Your task to perform on an android device: delete a single message in the gmail app Image 0: 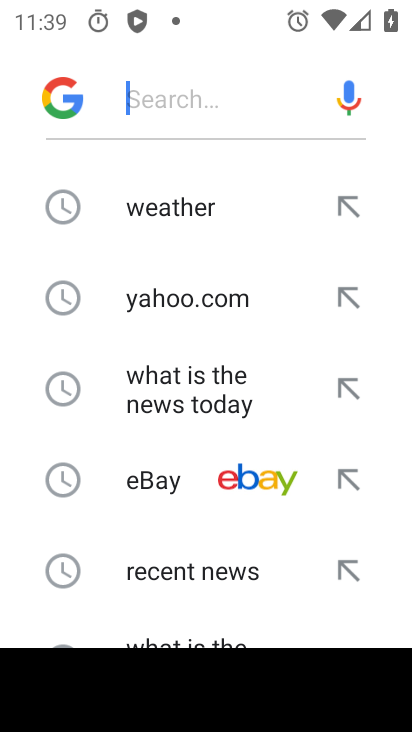
Step 0: press back button
Your task to perform on an android device: delete a single message in the gmail app Image 1: 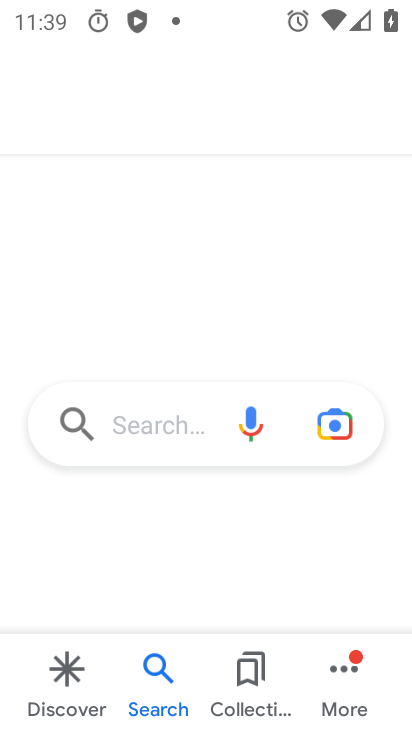
Step 1: press home button
Your task to perform on an android device: delete a single message in the gmail app Image 2: 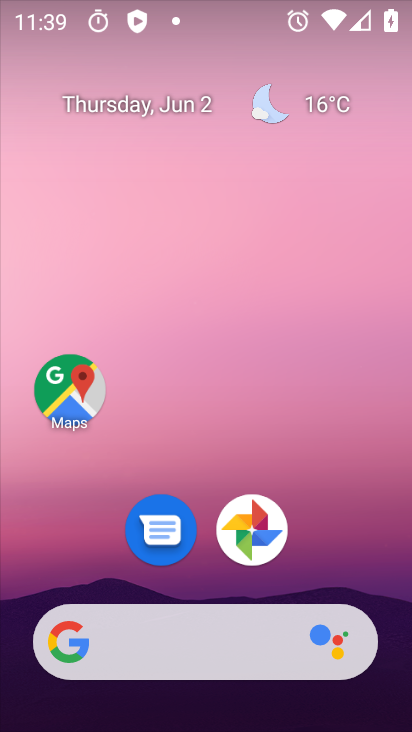
Step 2: drag from (227, 702) to (201, 131)
Your task to perform on an android device: delete a single message in the gmail app Image 3: 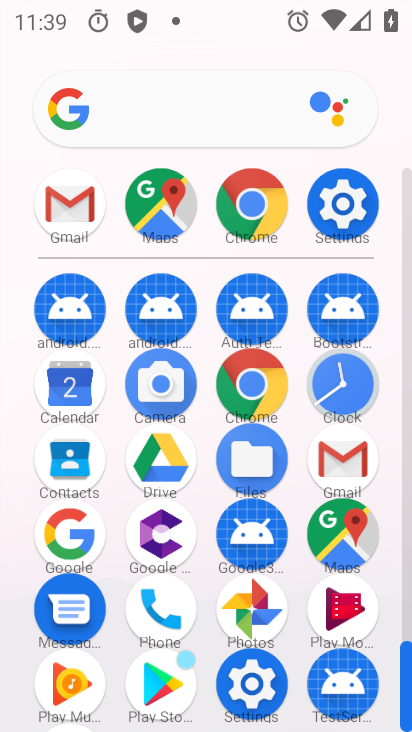
Step 3: click (331, 466)
Your task to perform on an android device: delete a single message in the gmail app Image 4: 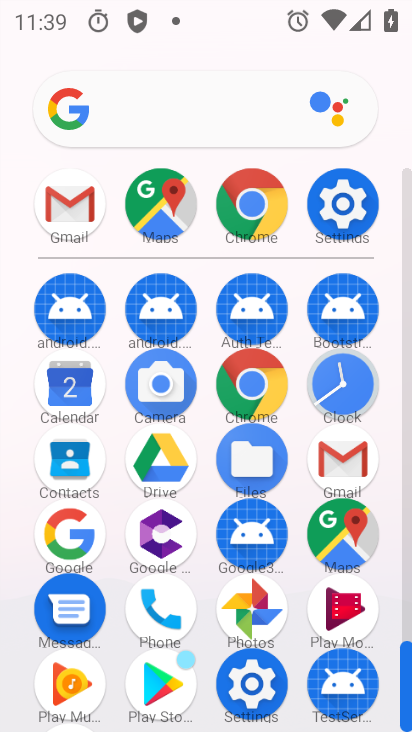
Step 4: click (331, 465)
Your task to perform on an android device: delete a single message in the gmail app Image 5: 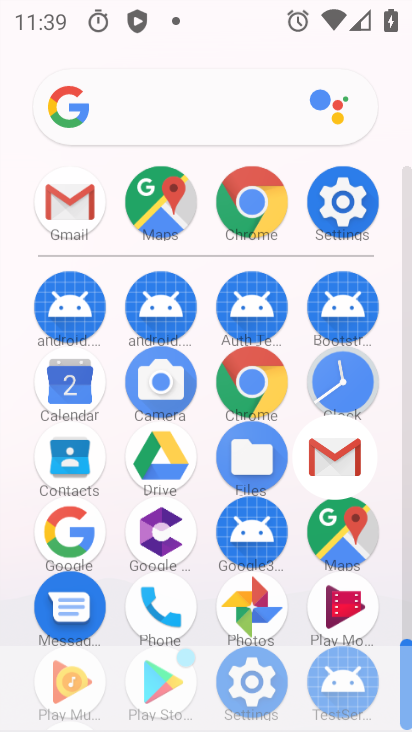
Step 5: click (331, 465)
Your task to perform on an android device: delete a single message in the gmail app Image 6: 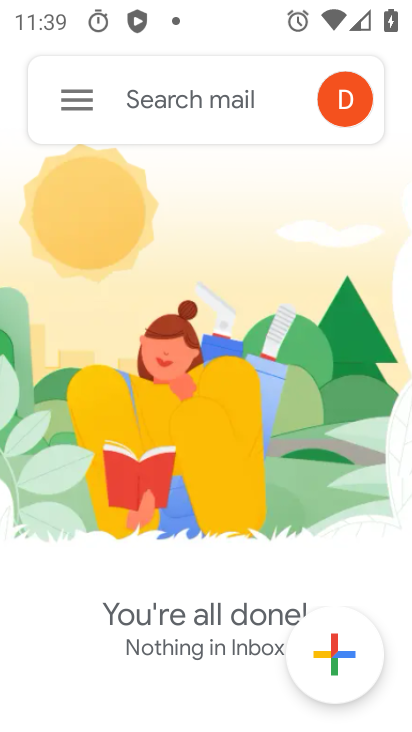
Step 6: click (68, 100)
Your task to perform on an android device: delete a single message in the gmail app Image 7: 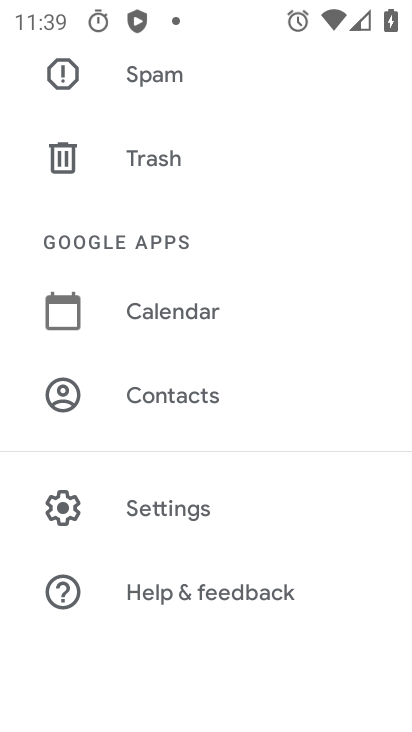
Step 7: drag from (157, 203) to (258, 615)
Your task to perform on an android device: delete a single message in the gmail app Image 8: 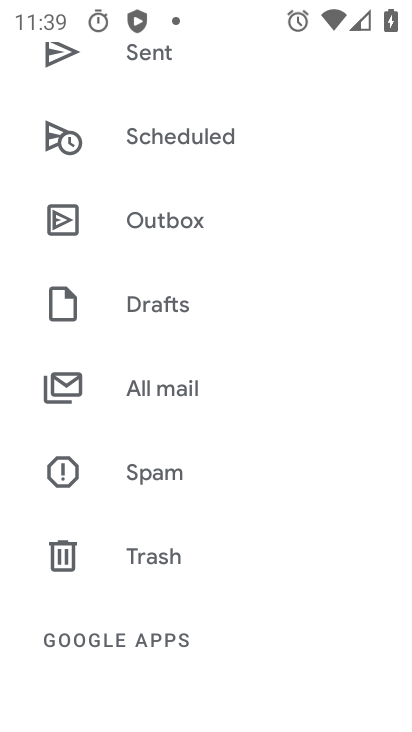
Step 8: click (154, 393)
Your task to perform on an android device: delete a single message in the gmail app Image 9: 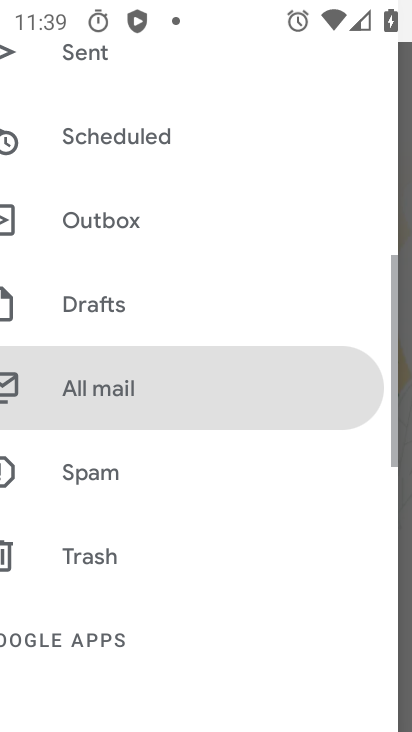
Step 9: click (154, 393)
Your task to perform on an android device: delete a single message in the gmail app Image 10: 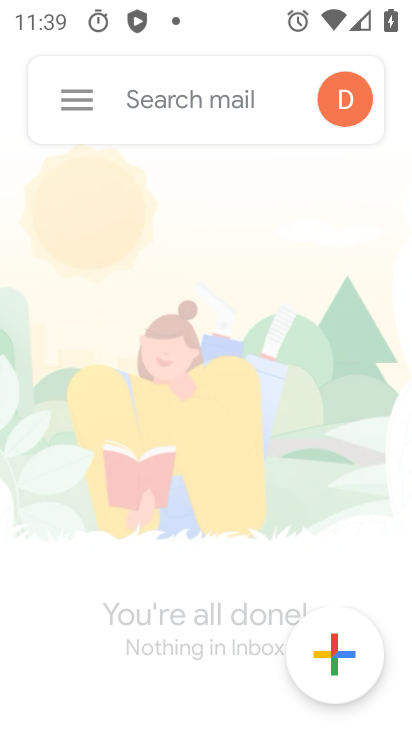
Step 10: click (155, 394)
Your task to perform on an android device: delete a single message in the gmail app Image 11: 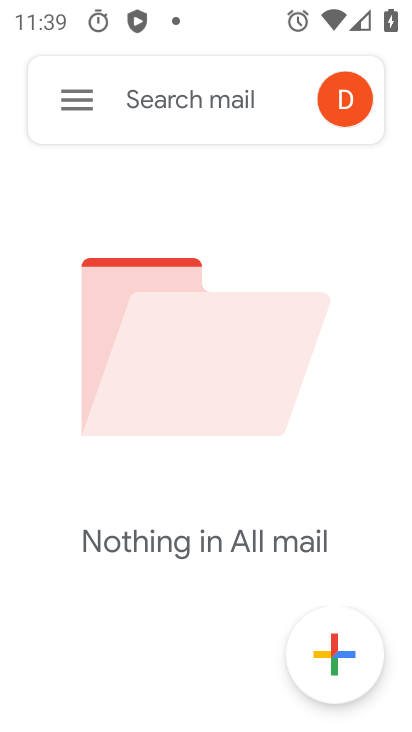
Step 11: task complete